Your task to perform on an android device: turn on priority inbox in the gmail app Image 0: 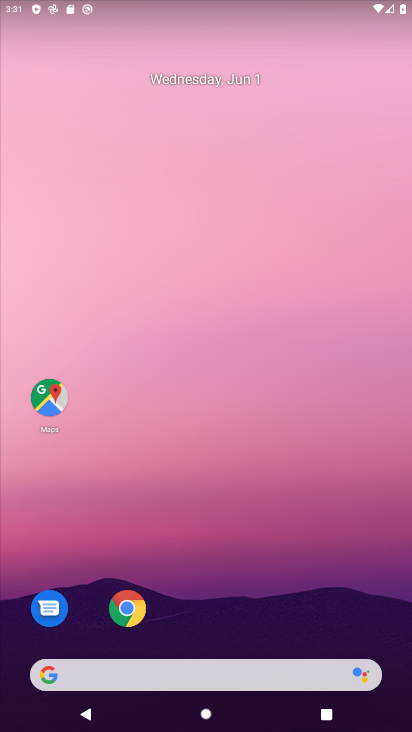
Step 0: drag from (260, 677) to (363, 23)
Your task to perform on an android device: turn on priority inbox in the gmail app Image 1: 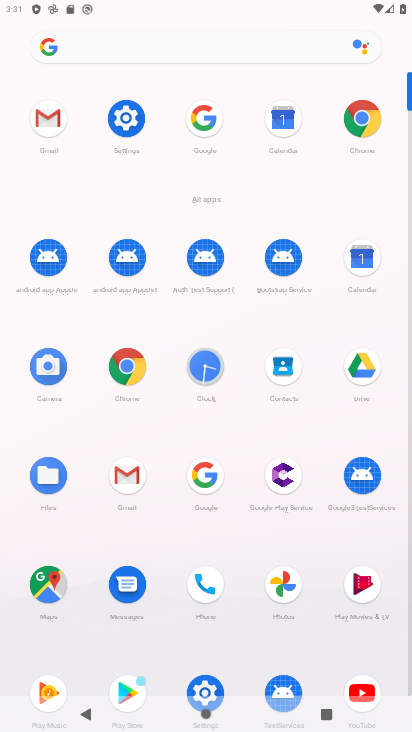
Step 1: click (52, 118)
Your task to perform on an android device: turn on priority inbox in the gmail app Image 2: 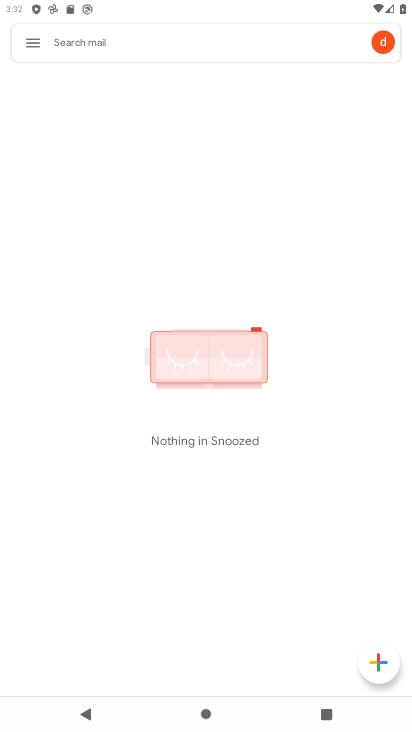
Step 2: click (28, 36)
Your task to perform on an android device: turn on priority inbox in the gmail app Image 3: 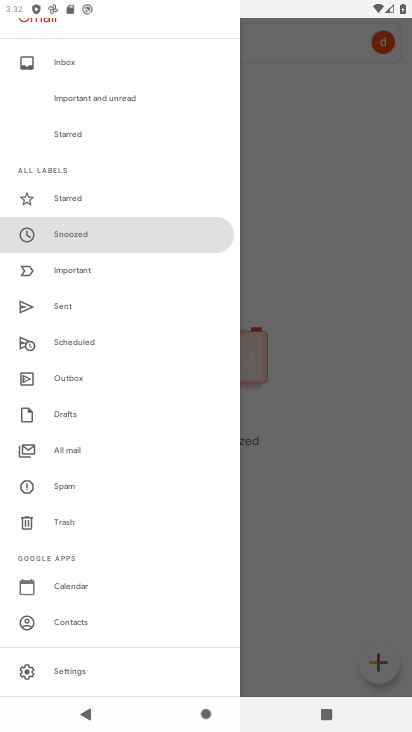
Step 3: click (71, 673)
Your task to perform on an android device: turn on priority inbox in the gmail app Image 4: 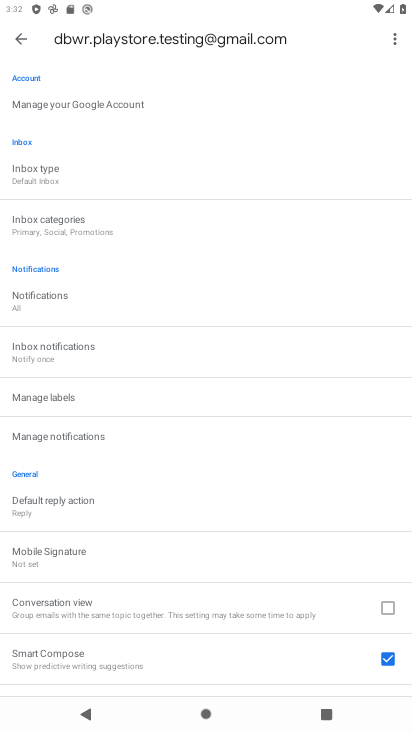
Step 4: click (64, 176)
Your task to perform on an android device: turn on priority inbox in the gmail app Image 5: 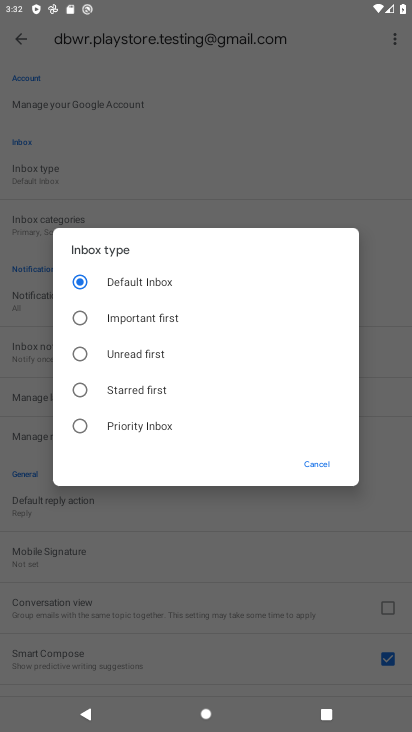
Step 5: click (107, 429)
Your task to perform on an android device: turn on priority inbox in the gmail app Image 6: 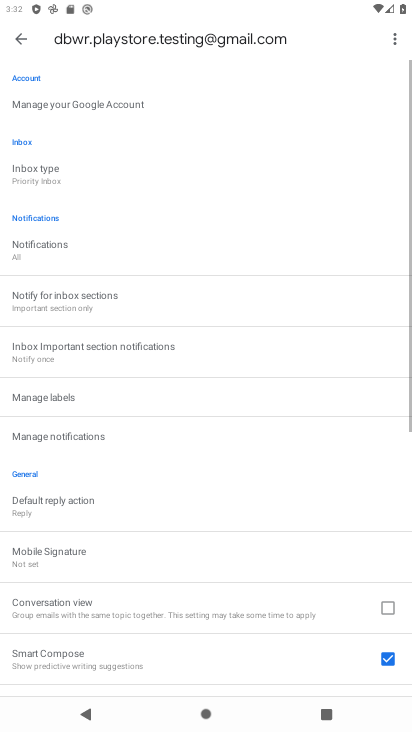
Step 6: task complete